Your task to perform on an android device: remove spam from my inbox in the gmail app Image 0: 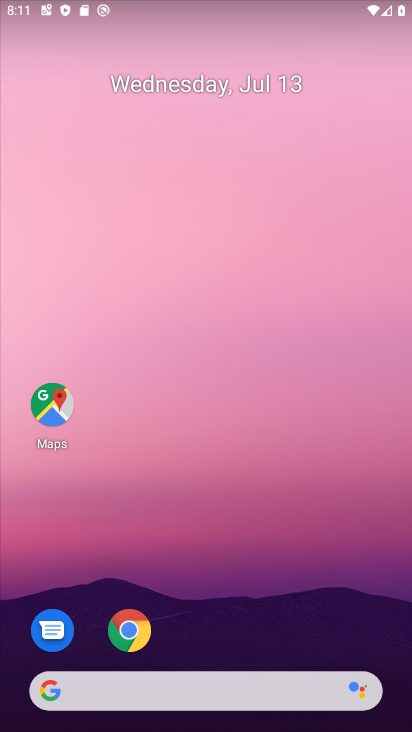
Step 0: drag from (331, 600) to (341, 95)
Your task to perform on an android device: remove spam from my inbox in the gmail app Image 1: 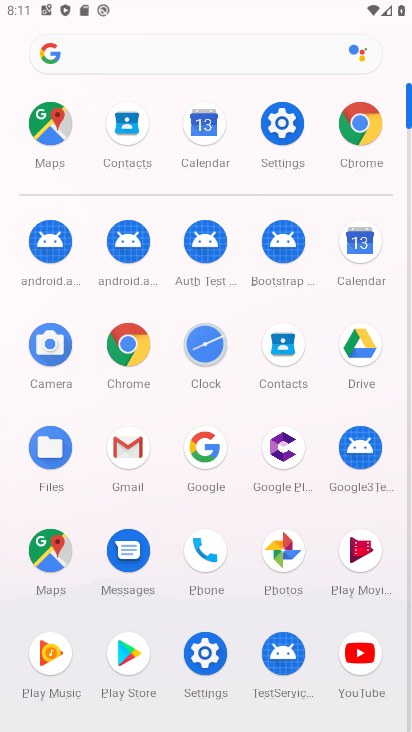
Step 1: click (128, 444)
Your task to perform on an android device: remove spam from my inbox in the gmail app Image 2: 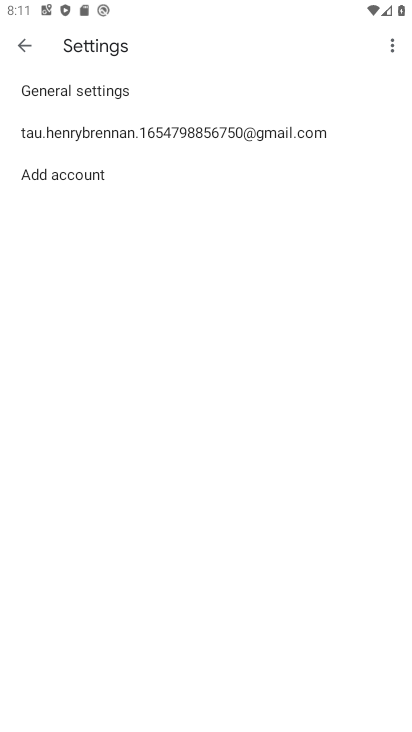
Step 2: press back button
Your task to perform on an android device: remove spam from my inbox in the gmail app Image 3: 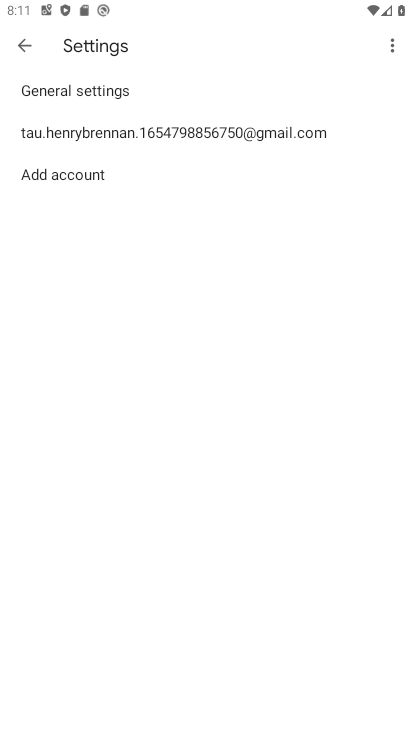
Step 3: press back button
Your task to perform on an android device: remove spam from my inbox in the gmail app Image 4: 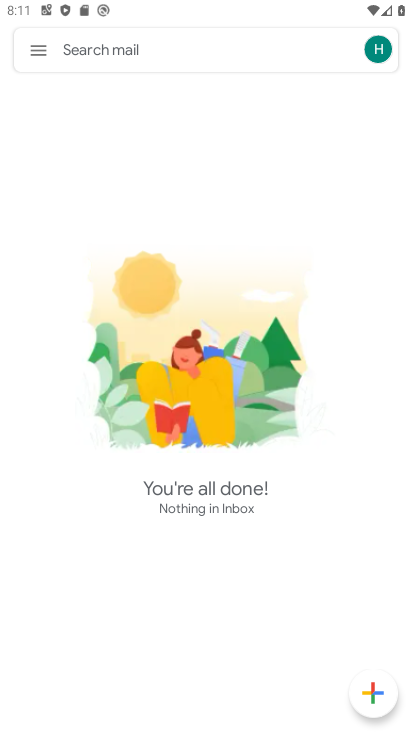
Step 4: click (39, 51)
Your task to perform on an android device: remove spam from my inbox in the gmail app Image 5: 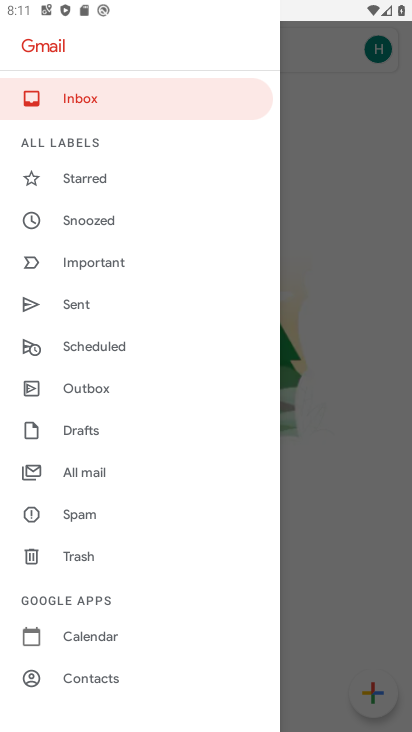
Step 5: drag from (183, 403) to (192, 513)
Your task to perform on an android device: remove spam from my inbox in the gmail app Image 6: 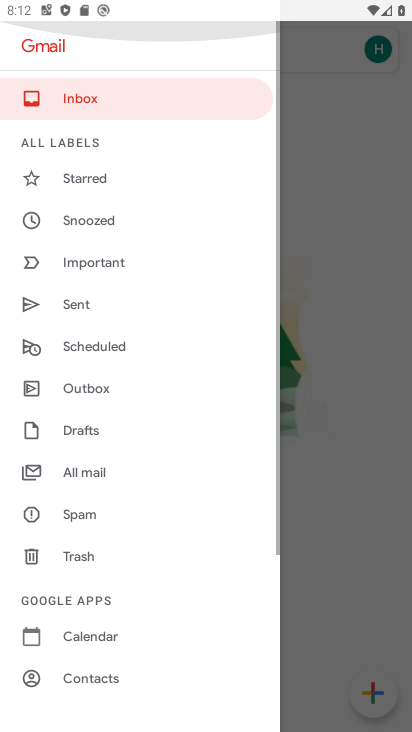
Step 6: drag from (192, 516) to (189, 416)
Your task to perform on an android device: remove spam from my inbox in the gmail app Image 7: 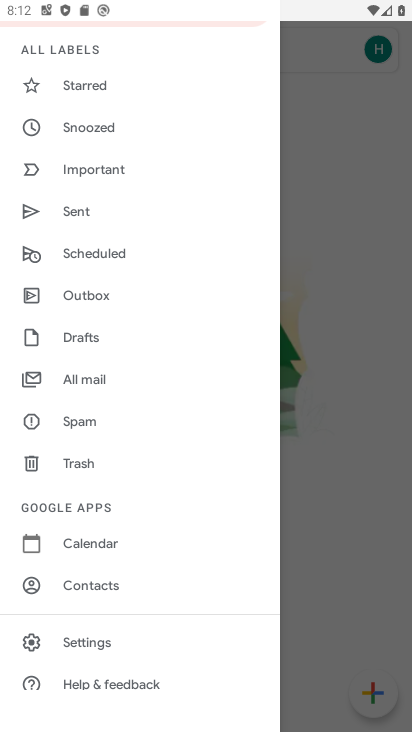
Step 7: drag from (209, 487) to (205, 374)
Your task to perform on an android device: remove spam from my inbox in the gmail app Image 8: 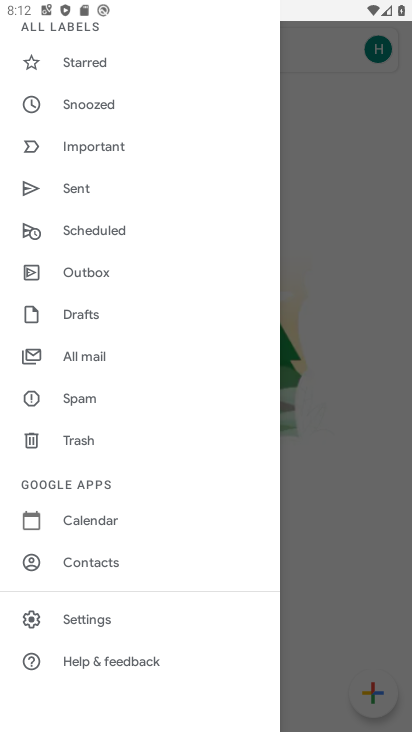
Step 8: click (115, 388)
Your task to perform on an android device: remove spam from my inbox in the gmail app Image 9: 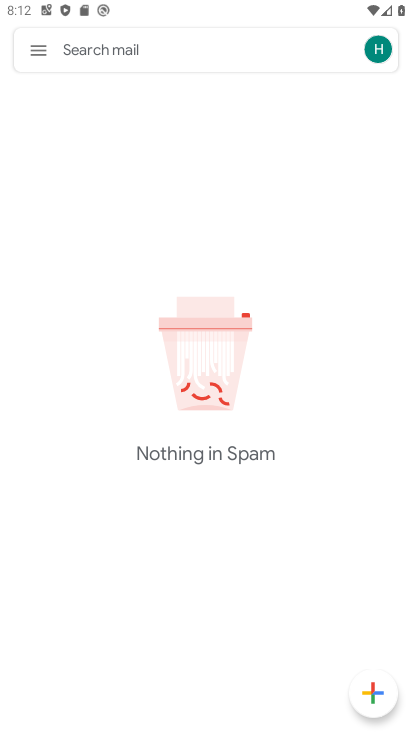
Step 9: task complete